Your task to perform on an android device: turn off translation in the chrome app Image 0: 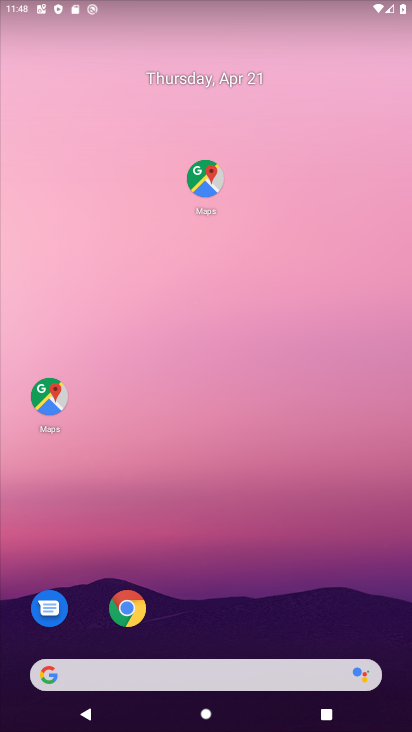
Step 0: drag from (294, 699) to (291, 157)
Your task to perform on an android device: turn off translation in the chrome app Image 1: 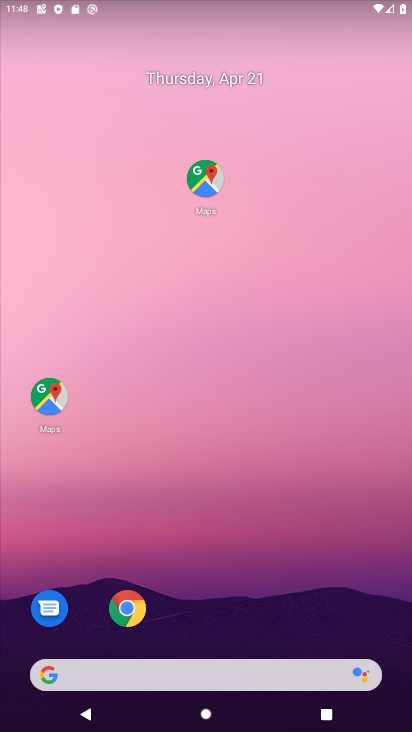
Step 1: drag from (203, 445) to (182, 247)
Your task to perform on an android device: turn off translation in the chrome app Image 2: 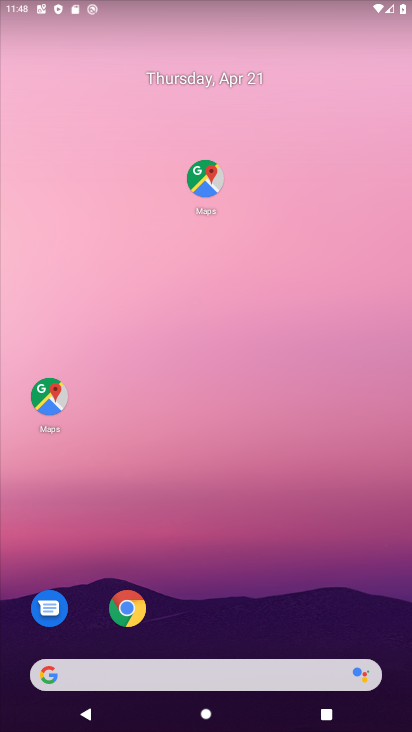
Step 2: drag from (232, 414) to (197, 197)
Your task to perform on an android device: turn off translation in the chrome app Image 3: 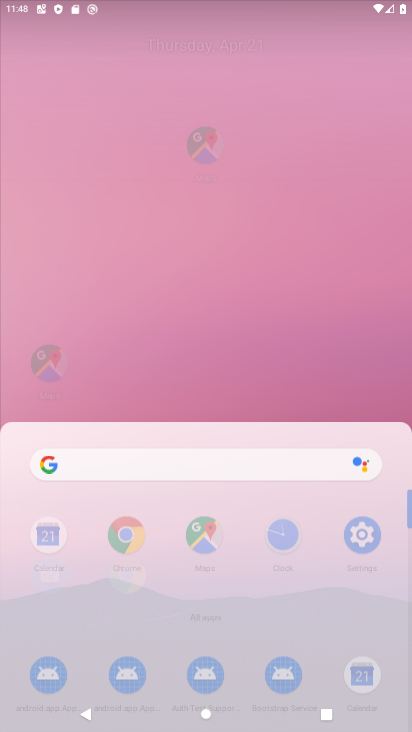
Step 3: drag from (208, 448) to (187, 173)
Your task to perform on an android device: turn off translation in the chrome app Image 4: 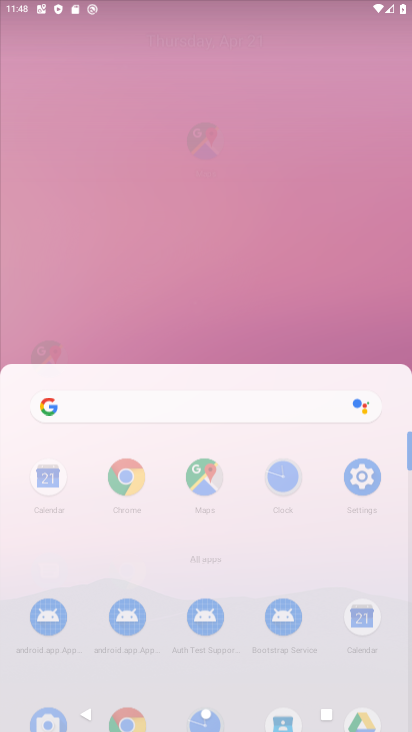
Step 4: drag from (207, 432) to (118, 99)
Your task to perform on an android device: turn off translation in the chrome app Image 5: 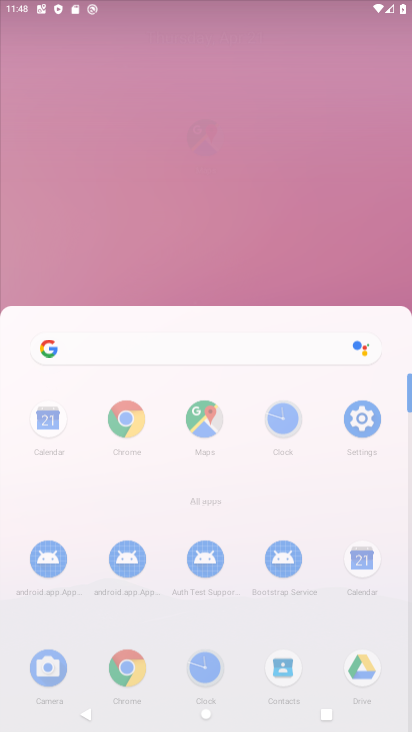
Step 5: drag from (145, 138) to (116, 32)
Your task to perform on an android device: turn off translation in the chrome app Image 6: 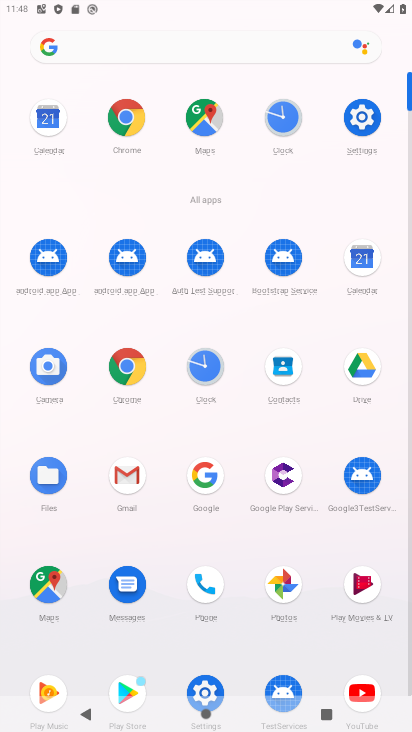
Step 6: click (114, 122)
Your task to perform on an android device: turn off translation in the chrome app Image 7: 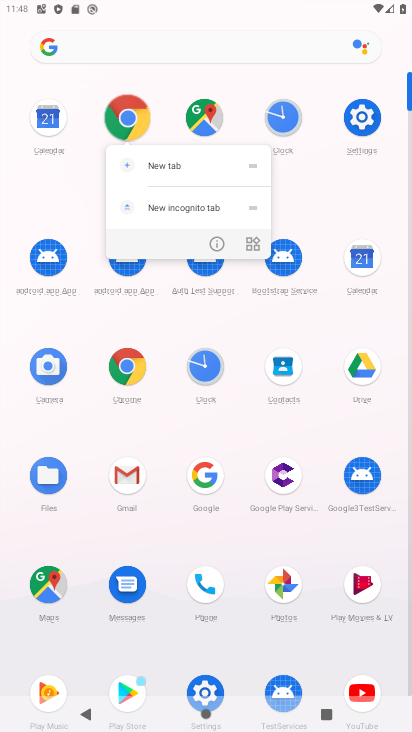
Step 7: click (114, 122)
Your task to perform on an android device: turn off translation in the chrome app Image 8: 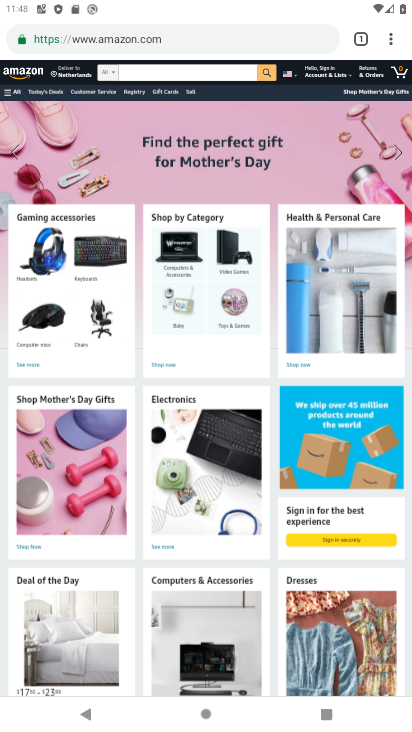
Step 8: click (390, 42)
Your task to perform on an android device: turn off translation in the chrome app Image 9: 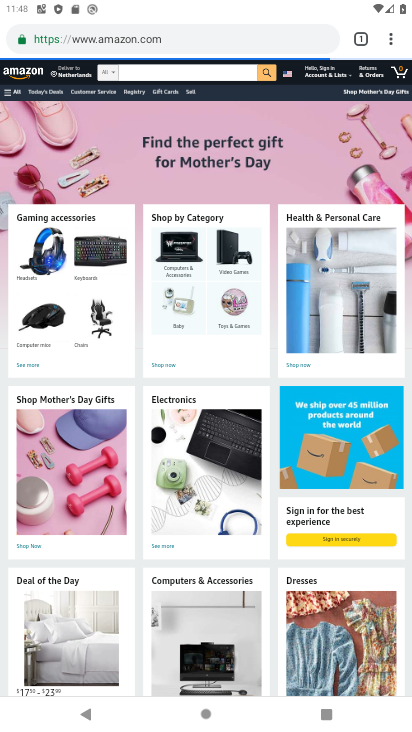
Step 9: drag from (388, 35) to (256, 508)
Your task to perform on an android device: turn off translation in the chrome app Image 10: 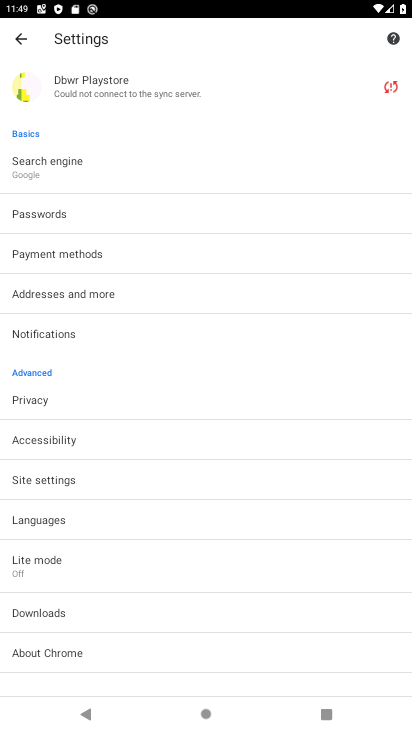
Step 10: click (35, 521)
Your task to perform on an android device: turn off translation in the chrome app Image 11: 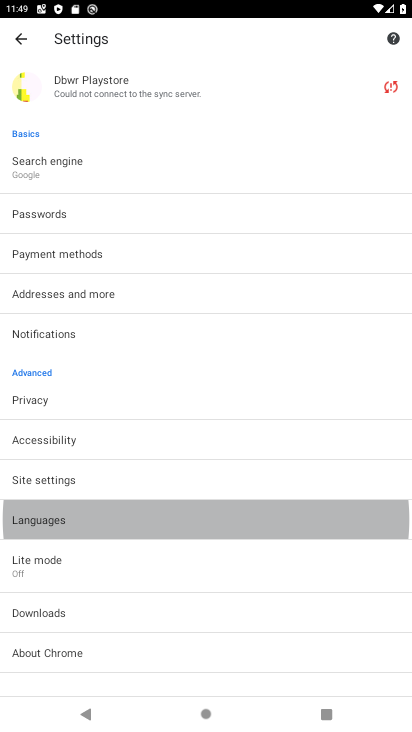
Step 11: click (38, 515)
Your task to perform on an android device: turn off translation in the chrome app Image 12: 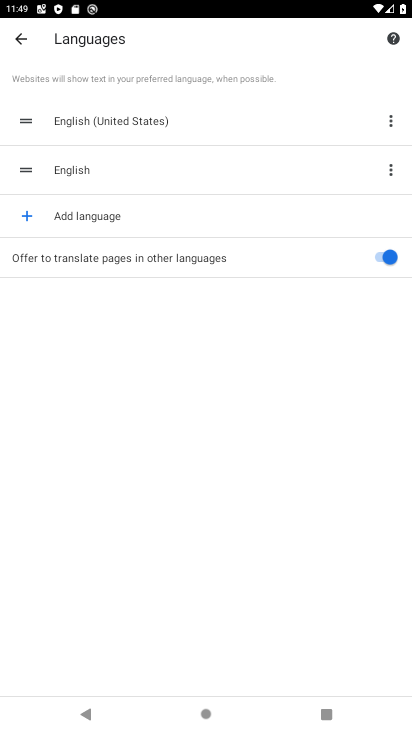
Step 12: click (387, 254)
Your task to perform on an android device: turn off translation in the chrome app Image 13: 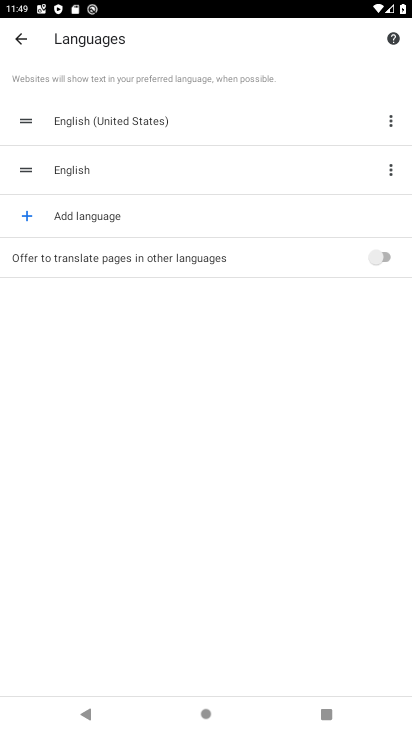
Step 13: task complete